Your task to perform on an android device: uninstall "Spotify: Music and Podcasts" Image 0: 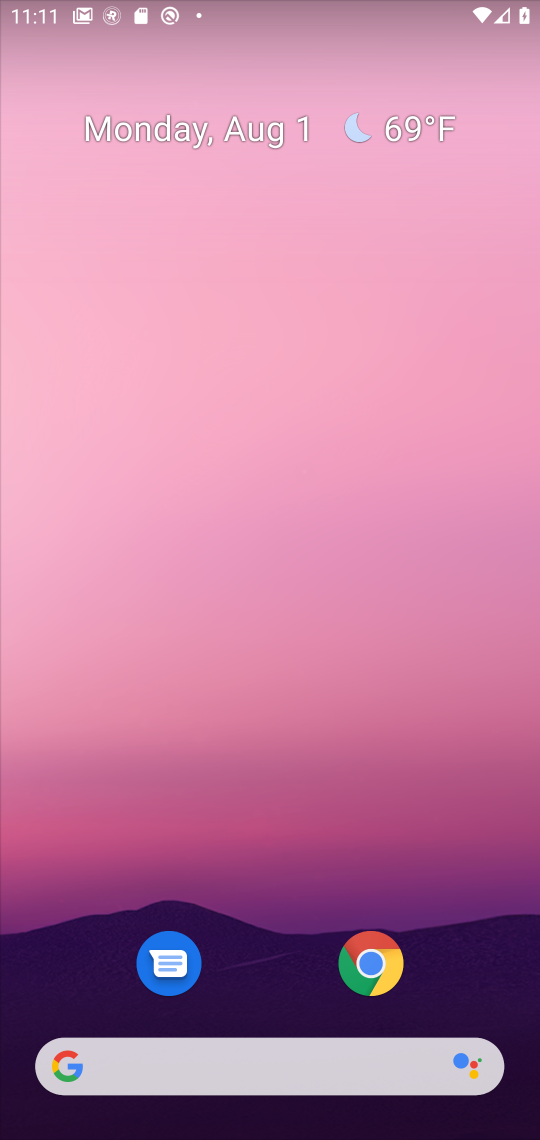
Step 0: drag from (253, 1007) to (175, 8)
Your task to perform on an android device: uninstall "Spotify: Music and Podcasts" Image 1: 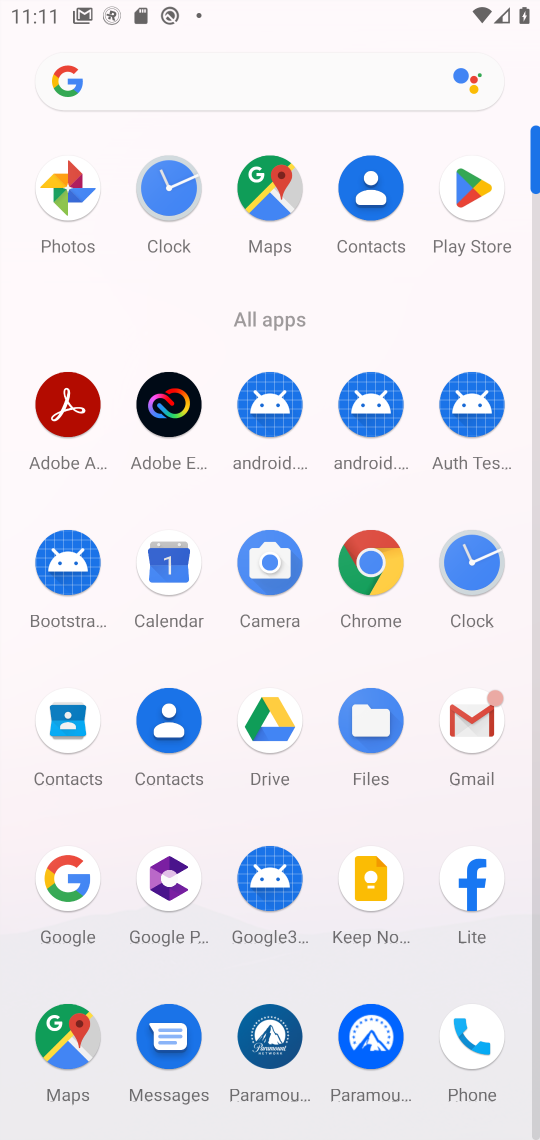
Step 1: click (471, 220)
Your task to perform on an android device: uninstall "Spotify: Music and Podcasts" Image 2: 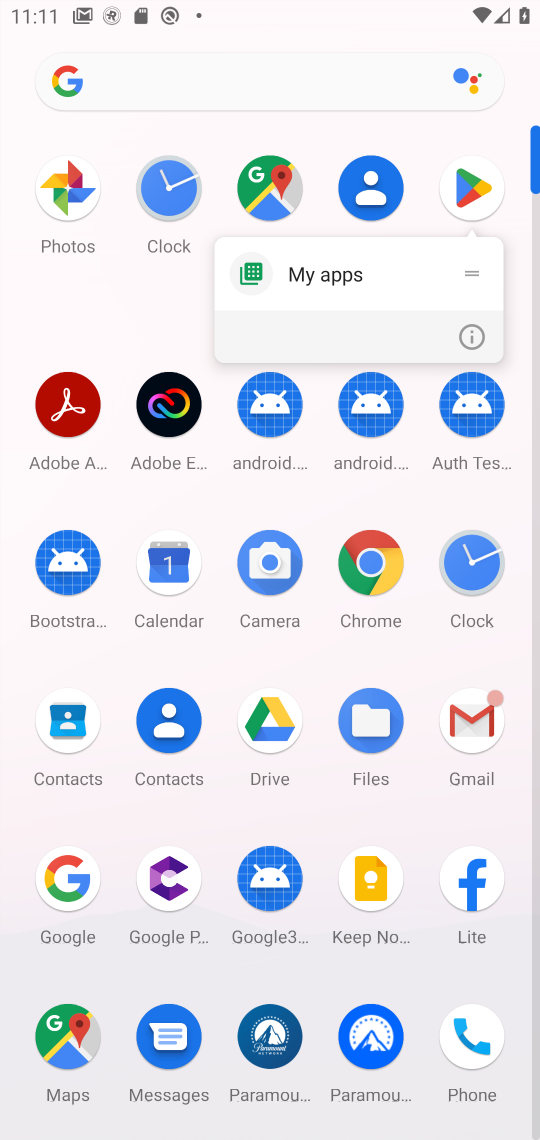
Step 2: click (474, 173)
Your task to perform on an android device: uninstall "Spotify: Music and Podcasts" Image 3: 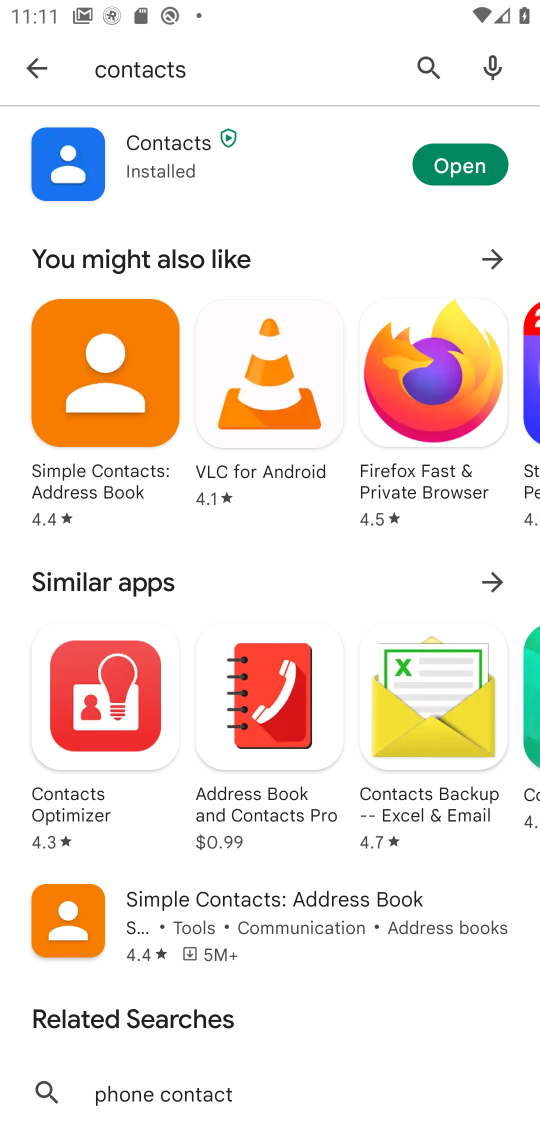
Step 3: click (192, 69)
Your task to perform on an android device: uninstall "Spotify: Music and Podcasts" Image 4: 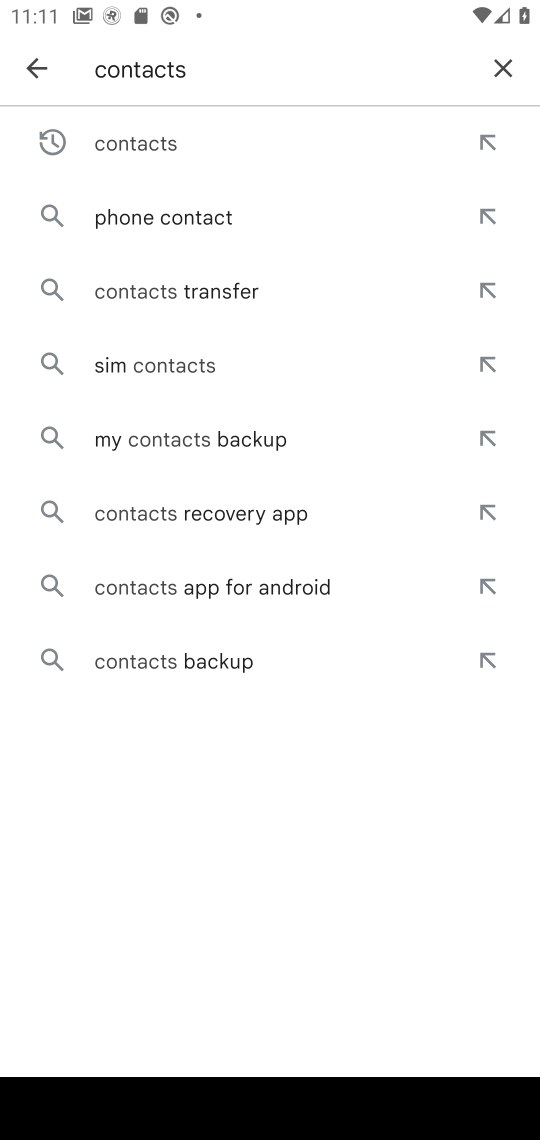
Step 4: click (508, 62)
Your task to perform on an android device: uninstall "Spotify: Music and Podcasts" Image 5: 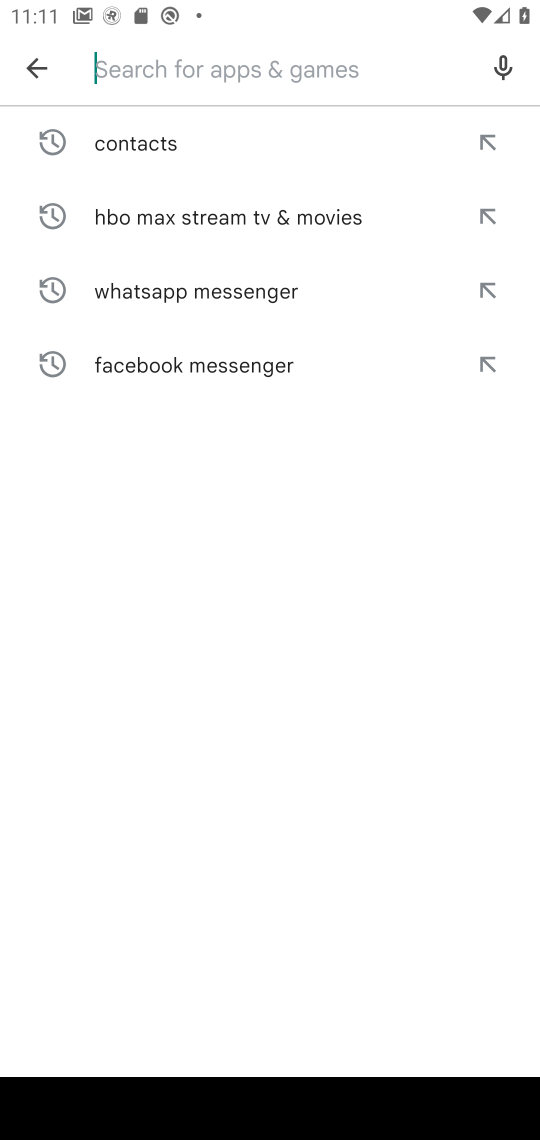
Step 5: type "Spotify"
Your task to perform on an android device: uninstall "Spotify: Music and Podcasts" Image 6: 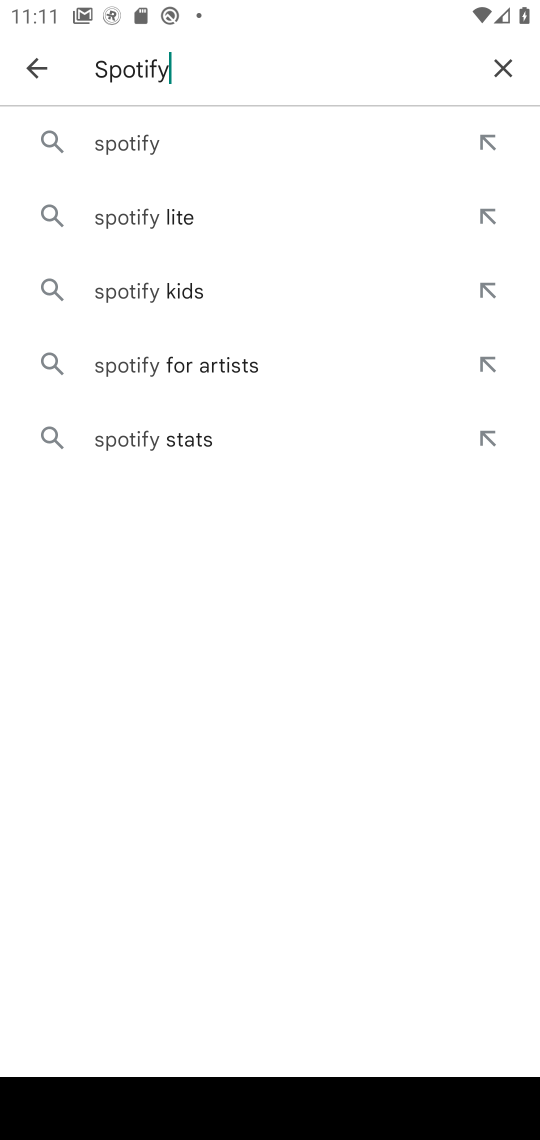
Step 6: click (126, 157)
Your task to perform on an android device: uninstall "Spotify: Music and Podcasts" Image 7: 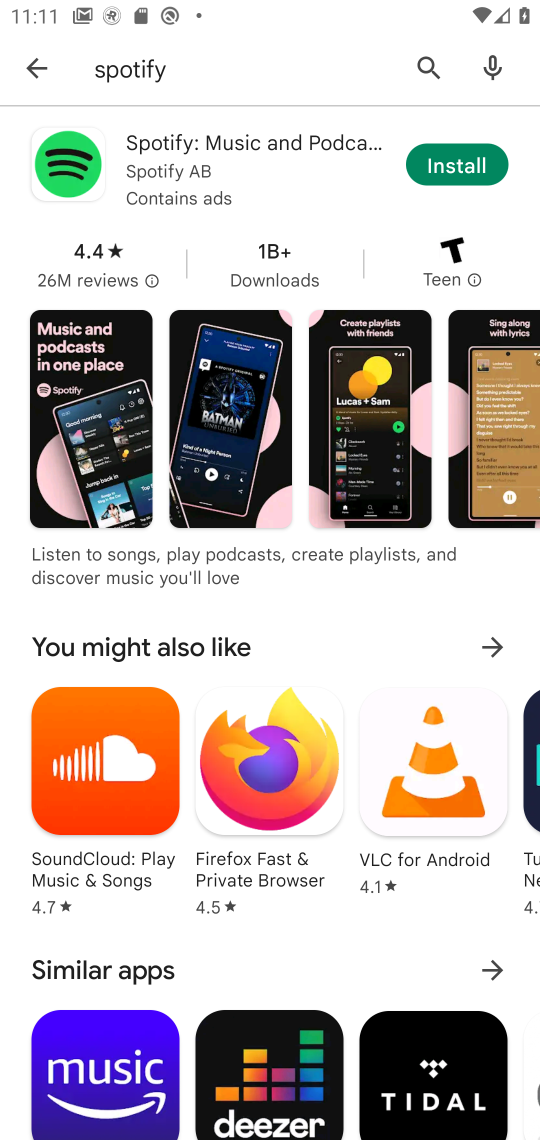
Step 7: task complete